Your task to perform on an android device: Go to Google Image 0: 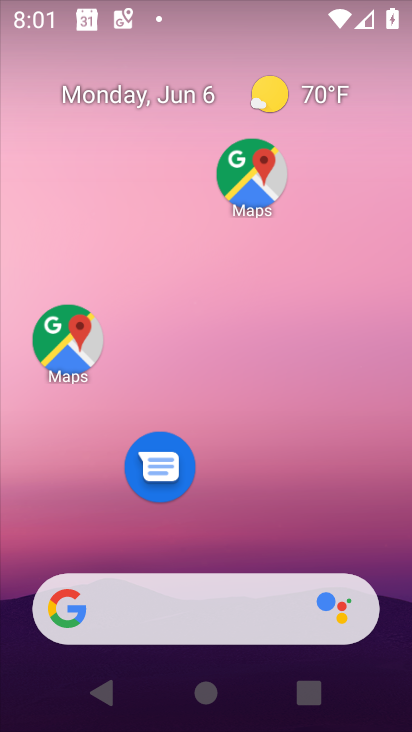
Step 0: drag from (281, 657) to (218, 242)
Your task to perform on an android device: Go to Google Image 1: 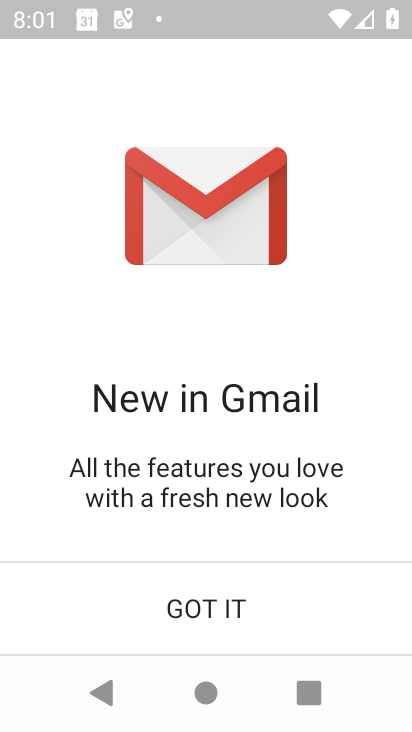
Step 1: task complete